Your task to perform on an android device: check battery use Image 0: 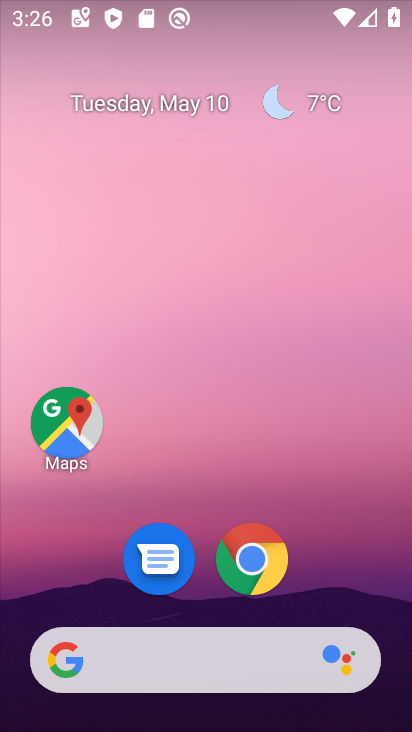
Step 0: drag from (346, 567) to (389, 165)
Your task to perform on an android device: check battery use Image 1: 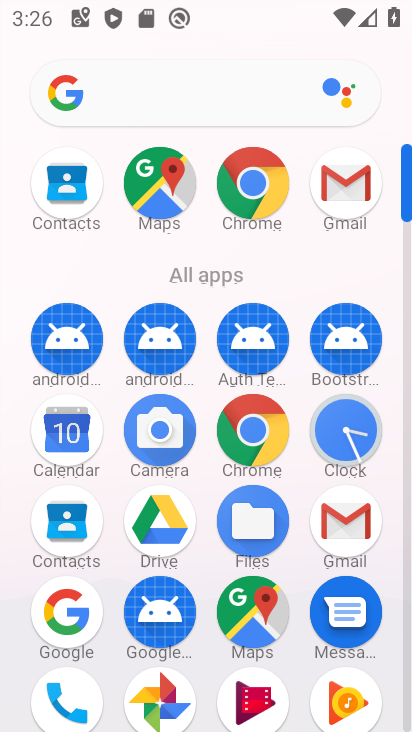
Step 1: drag from (297, 554) to (300, 160)
Your task to perform on an android device: check battery use Image 2: 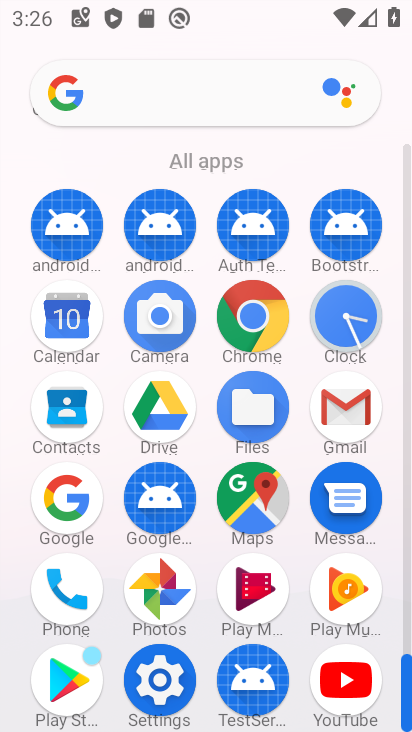
Step 2: click (158, 653)
Your task to perform on an android device: check battery use Image 3: 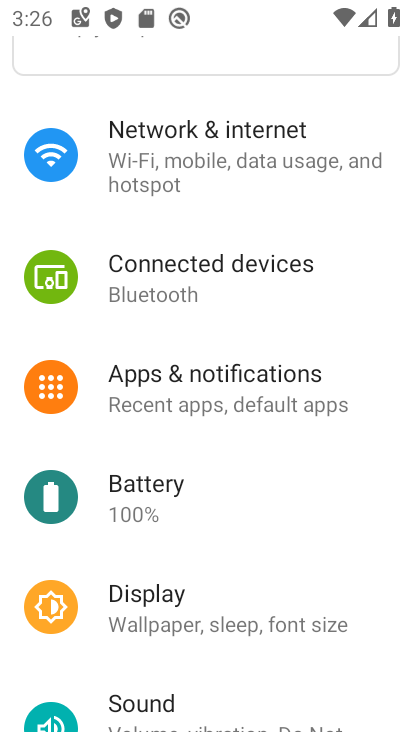
Step 3: click (219, 512)
Your task to perform on an android device: check battery use Image 4: 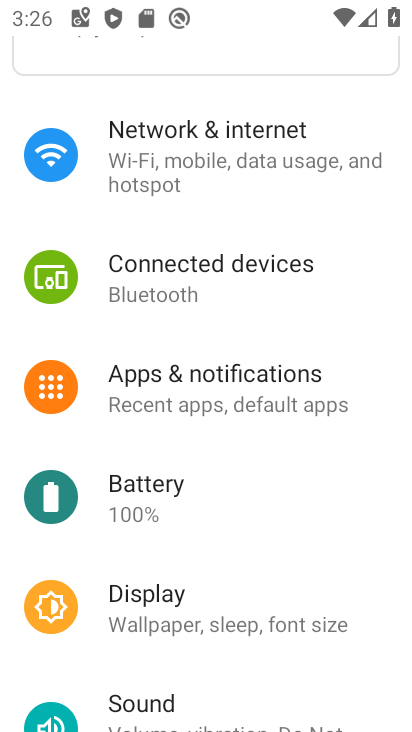
Step 4: click (194, 516)
Your task to perform on an android device: check battery use Image 5: 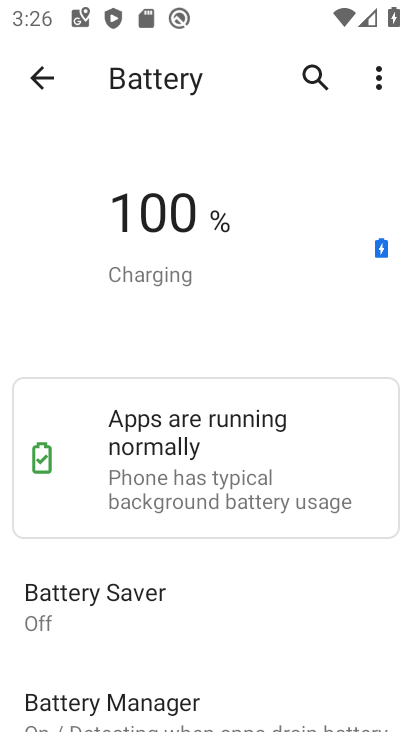
Step 5: task complete